Your task to perform on an android device: turn on priority inbox in the gmail app Image 0: 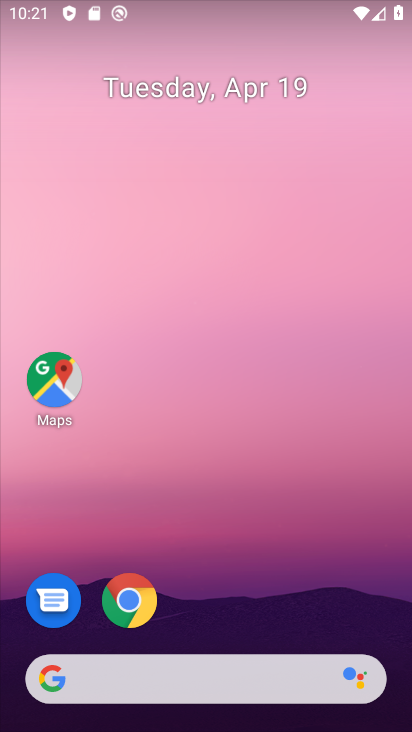
Step 0: drag from (215, 621) to (345, 5)
Your task to perform on an android device: turn on priority inbox in the gmail app Image 1: 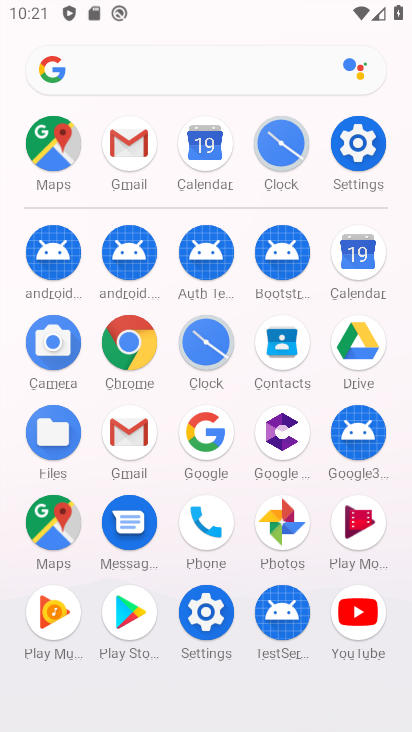
Step 1: click (127, 430)
Your task to perform on an android device: turn on priority inbox in the gmail app Image 2: 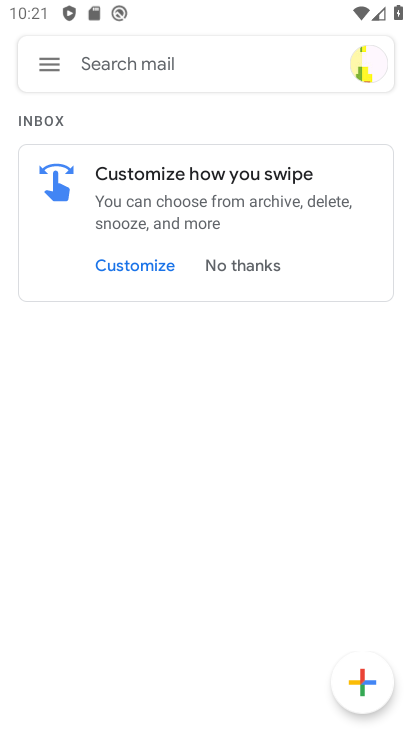
Step 2: click (54, 65)
Your task to perform on an android device: turn on priority inbox in the gmail app Image 3: 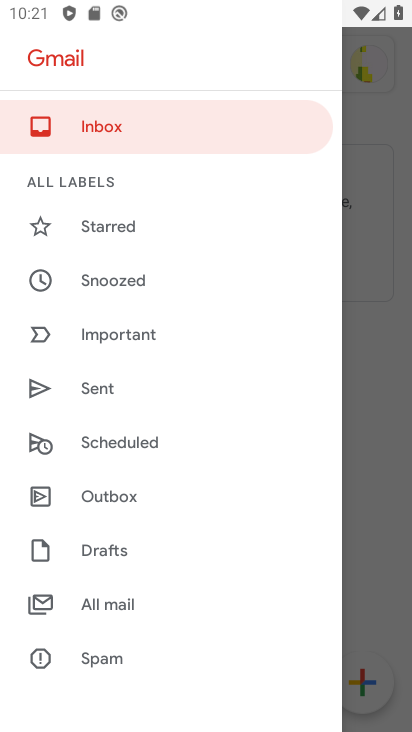
Step 3: drag from (97, 634) to (151, 233)
Your task to perform on an android device: turn on priority inbox in the gmail app Image 4: 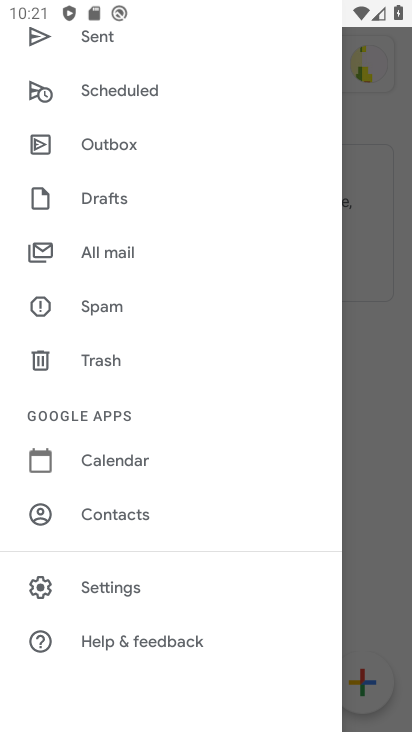
Step 4: click (103, 578)
Your task to perform on an android device: turn on priority inbox in the gmail app Image 5: 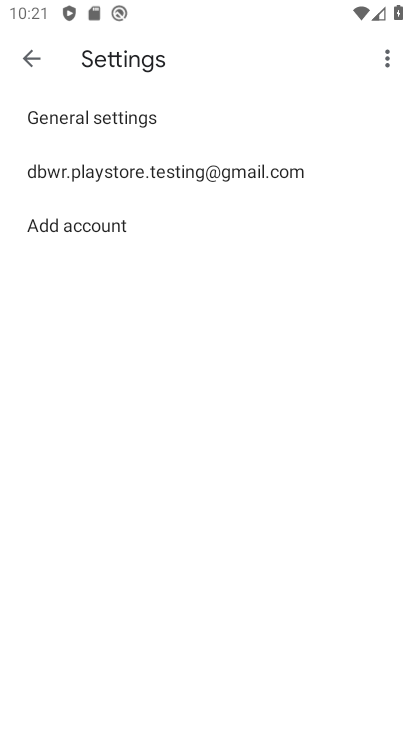
Step 5: click (114, 170)
Your task to perform on an android device: turn on priority inbox in the gmail app Image 6: 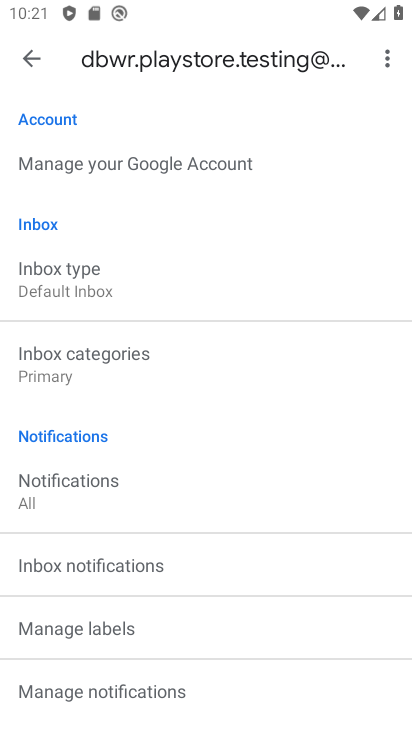
Step 6: click (81, 294)
Your task to perform on an android device: turn on priority inbox in the gmail app Image 7: 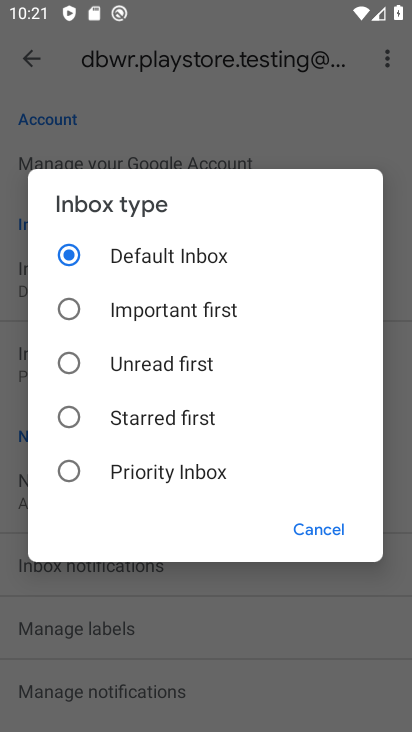
Step 7: click (76, 471)
Your task to perform on an android device: turn on priority inbox in the gmail app Image 8: 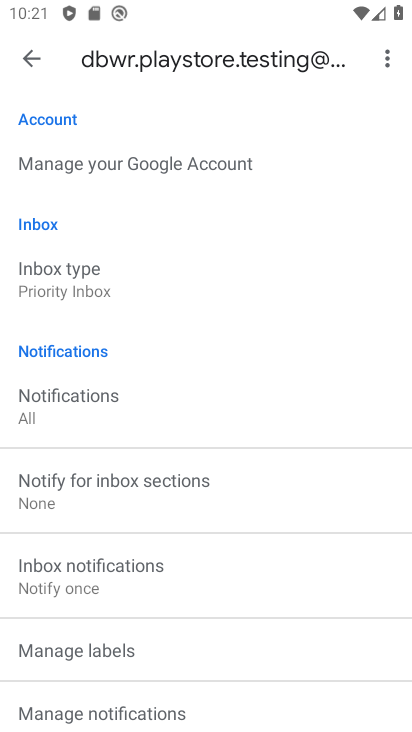
Step 8: task complete